Your task to perform on an android device: Is it going to rain this weekend? Image 0: 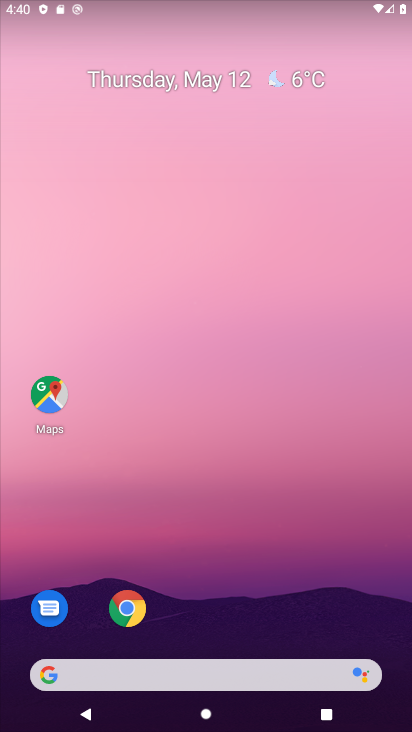
Step 0: drag from (338, 559) to (369, 58)
Your task to perform on an android device: Is it going to rain this weekend? Image 1: 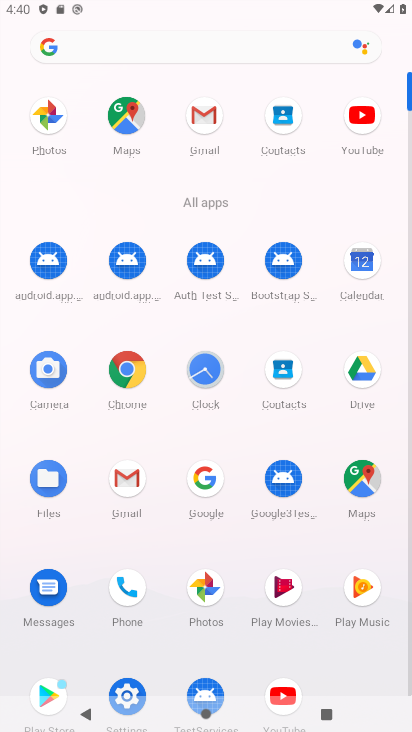
Step 1: click (126, 379)
Your task to perform on an android device: Is it going to rain this weekend? Image 2: 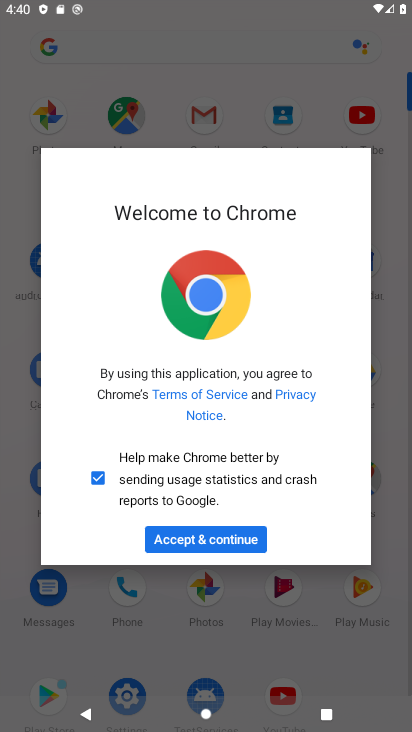
Step 2: click (236, 530)
Your task to perform on an android device: Is it going to rain this weekend? Image 3: 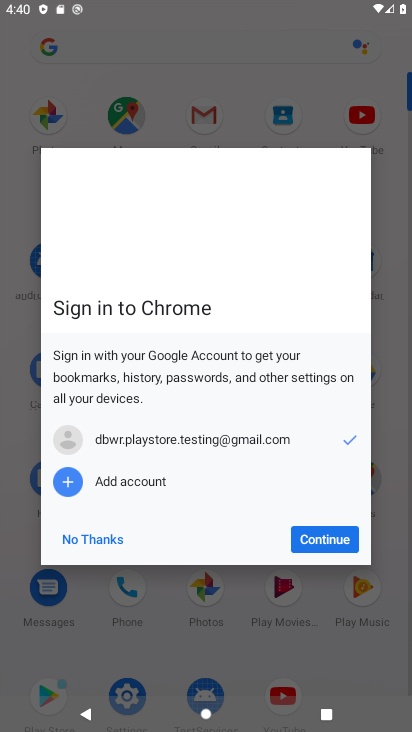
Step 3: click (345, 538)
Your task to perform on an android device: Is it going to rain this weekend? Image 4: 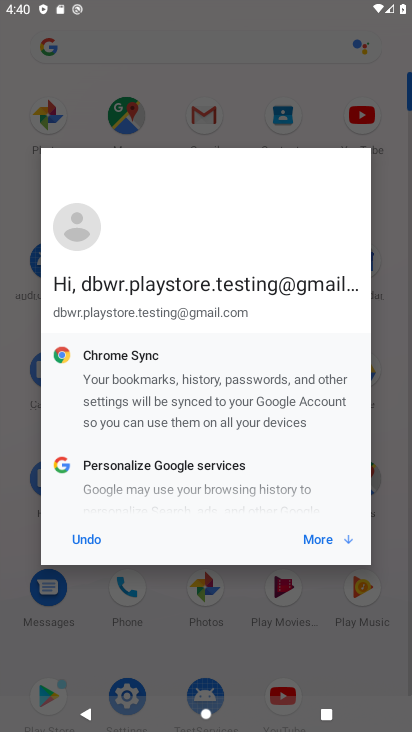
Step 4: click (345, 538)
Your task to perform on an android device: Is it going to rain this weekend? Image 5: 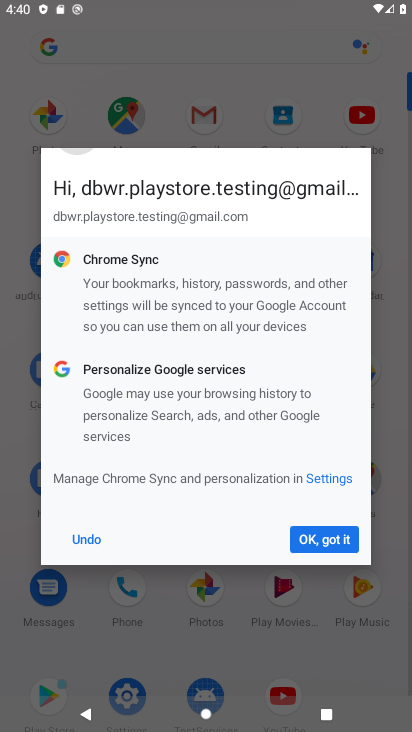
Step 5: click (345, 538)
Your task to perform on an android device: Is it going to rain this weekend? Image 6: 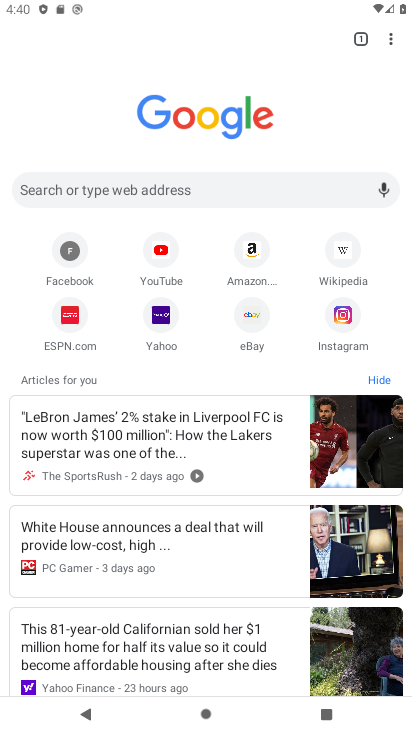
Step 6: click (192, 188)
Your task to perform on an android device: Is it going to rain this weekend? Image 7: 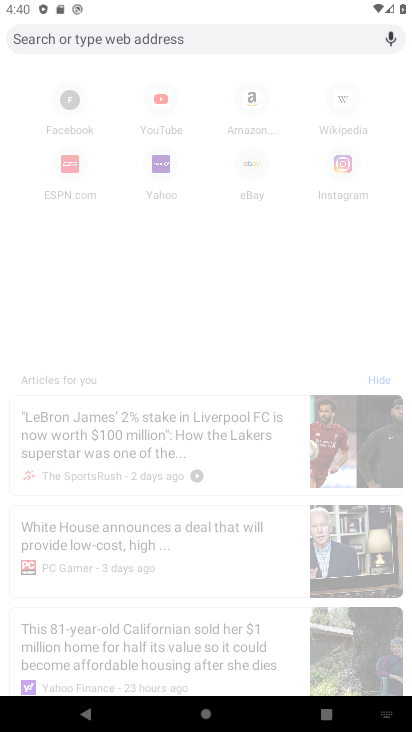
Step 7: type "Is it going to rain this weekend?"
Your task to perform on an android device: Is it going to rain this weekend? Image 8: 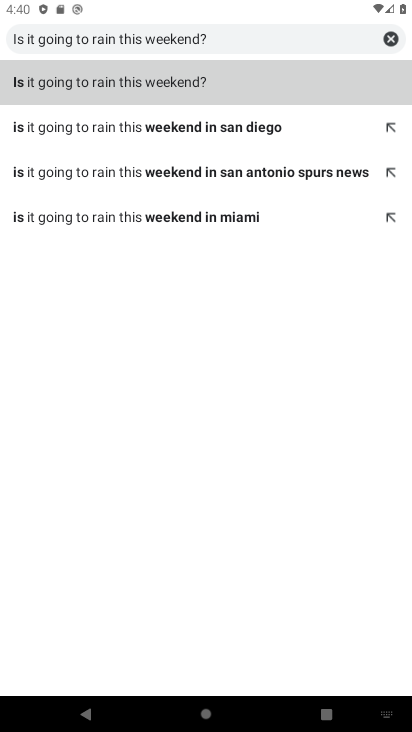
Step 8: click (193, 82)
Your task to perform on an android device: Is it going to rain this weekend? Image 9: 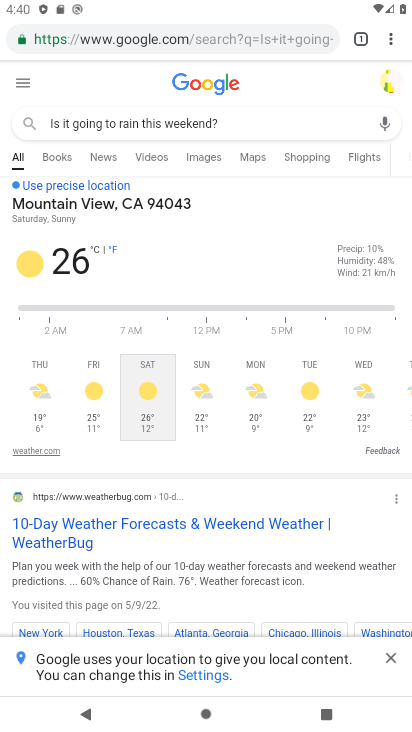
Step 9: task complete